Your task to perform on an android device: make emails show in primary in the gmail app Image 0: 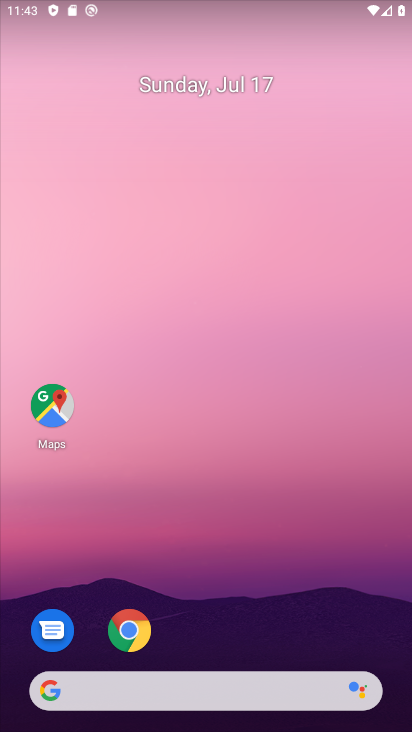
Step 0: drag from (271, 507) to (250, 232)
Your task to perform on an android device: make emails show in primary in the gmail app Image 1: 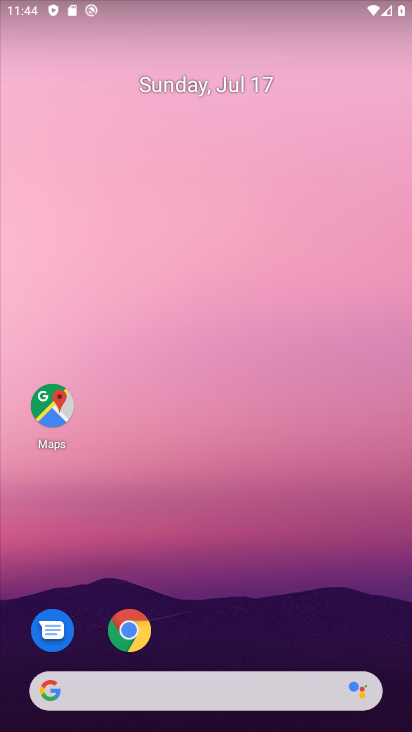
Step 1: click (189, 20)
Your task to perform on an android device: make emails show in primary in the gmail app Image 2: 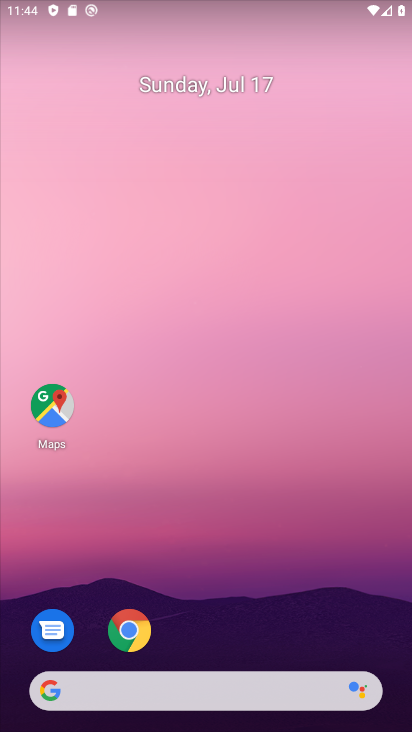
Step 2: drag from (211, 470) to (257, 59)
Your task to perform on an android device: make emails show in primary in the gmail app Image 3: 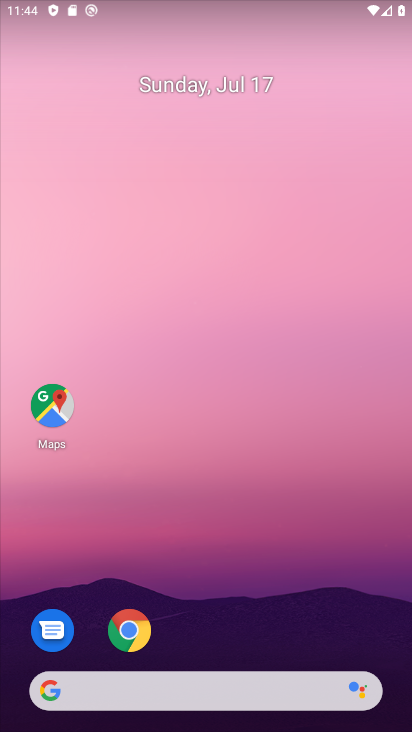
Step 3: drag from (165, 695) to (149, 37)
Your task to perform on an android device: make emails show in primary in the gmail app Image 4: 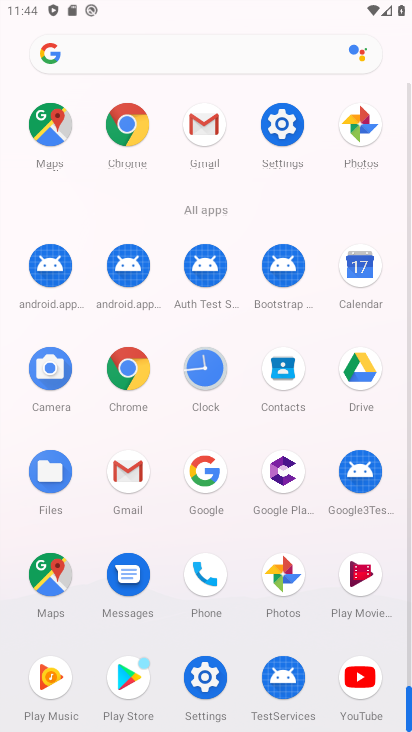
Step 4: drag from (220, 463) to (154, 138)
Your task to perform on an android device: make emails show in primary in the gmail app Image 5: 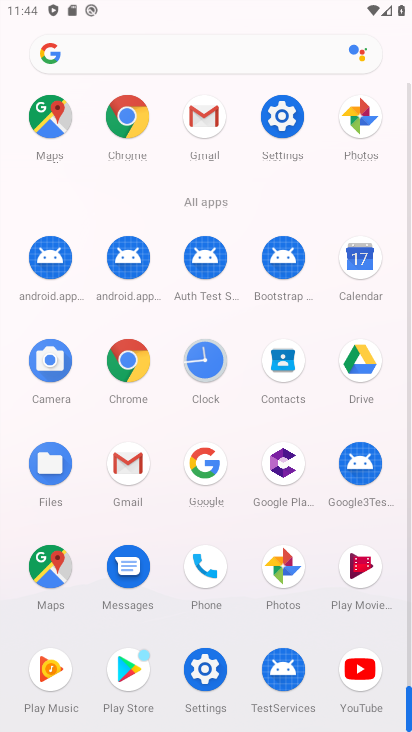
Step 5: click (131, 465)
Your task to perform on an android device: make emails show in primary in the gmail app Image 6: 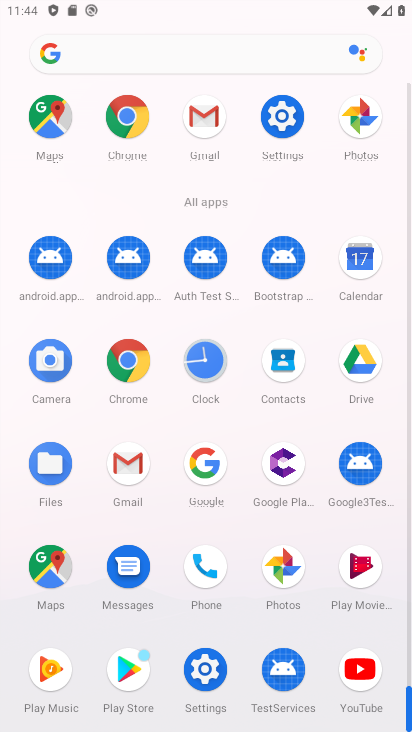
Step 6: click (132, 466)
Your task to perform on an android device: make emails show in primary in the gmail app Image 7: 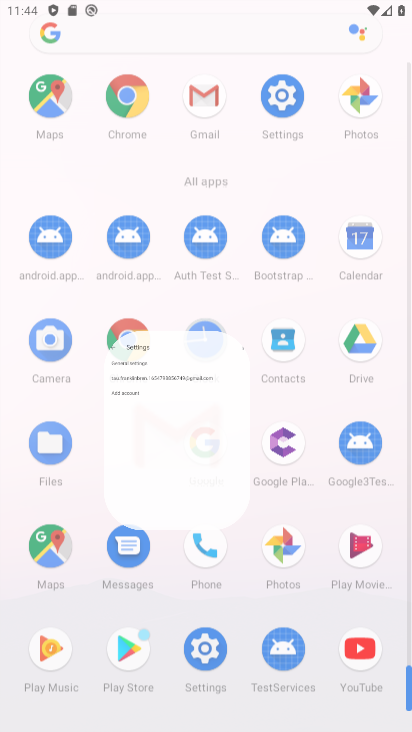
Step 7: click (138, 472)
Your task to perform on an android device: make emails show in primary in the gmail app Image 8: 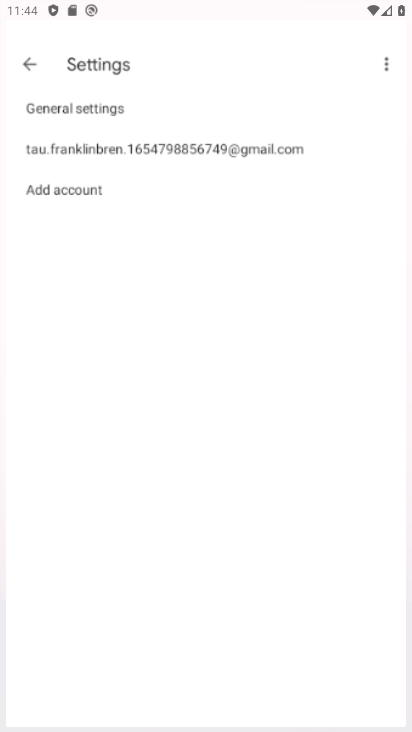
Step 8: click (140, 474)
Your task to perform on an android device: make emails show in primary in the gmail app Image 9: 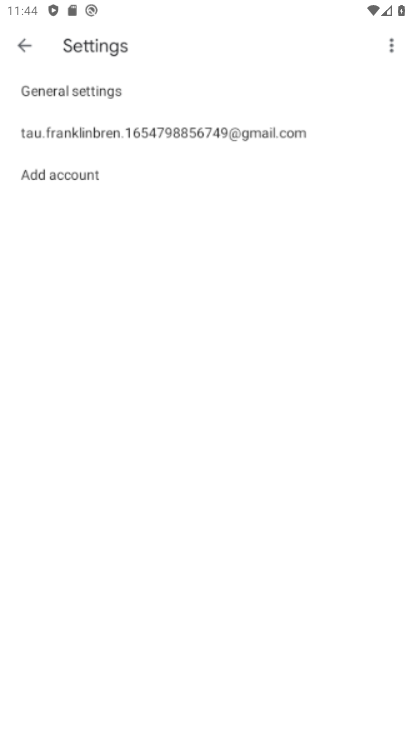
Step 9: click (140, 474)
Your task to perform on an android device: make emails show in primary in the gmail app Image 10: 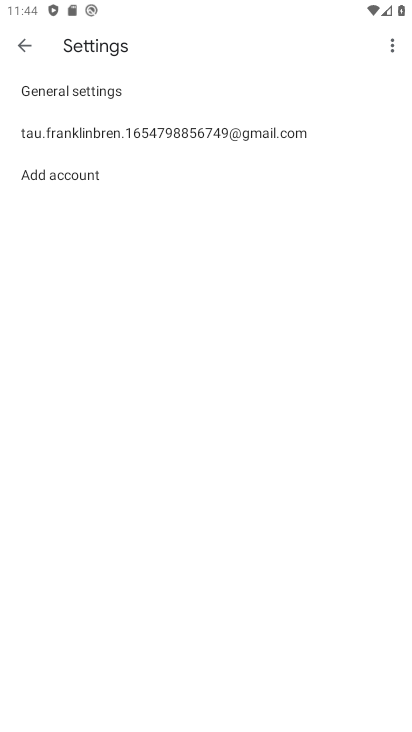
Step 10: click (94, 130)
Your task to perform on an android device: make emails show in primary in the gmail app Image 11: 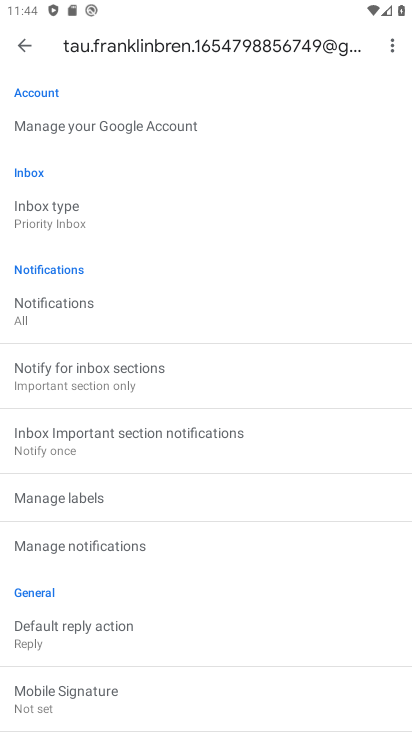
Step 11: click (43, 208)
Your task to perform on an android device: make emails show in primary in the gmail app Image 12: 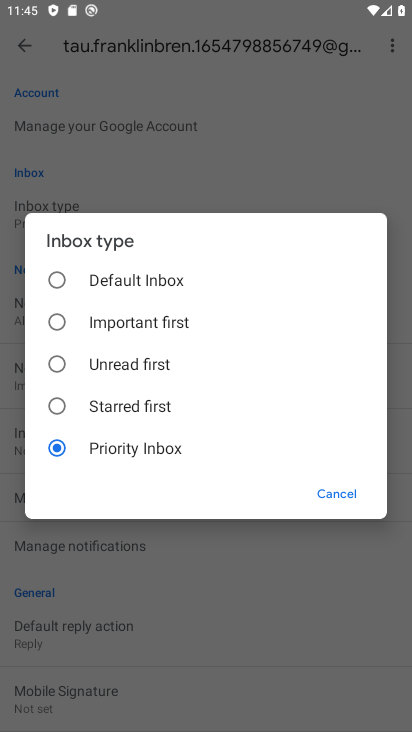
Step 12: click (52, 282)
Your task to perform on an android device: make emails show in primary in the gmail app Image 13: 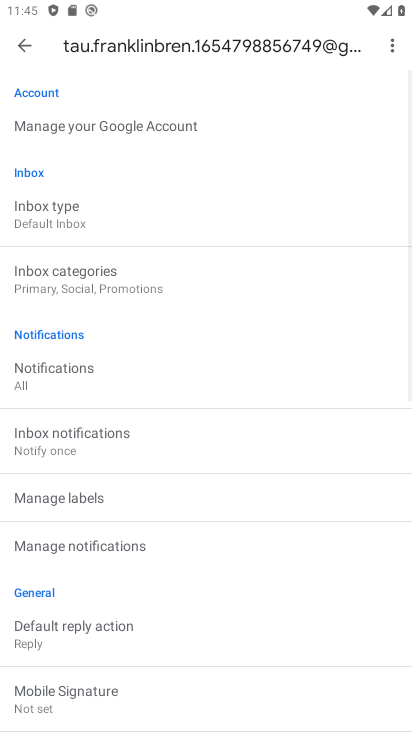
Step 13: task complete